Your task to perform on an android device: change the clock display to analog Image 0: 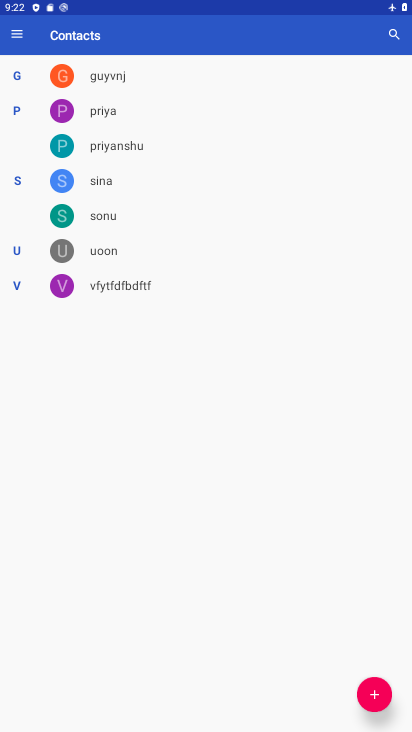
Step 0: press home button
Your task to perform on an android device: change the clock display to analog Image 1: 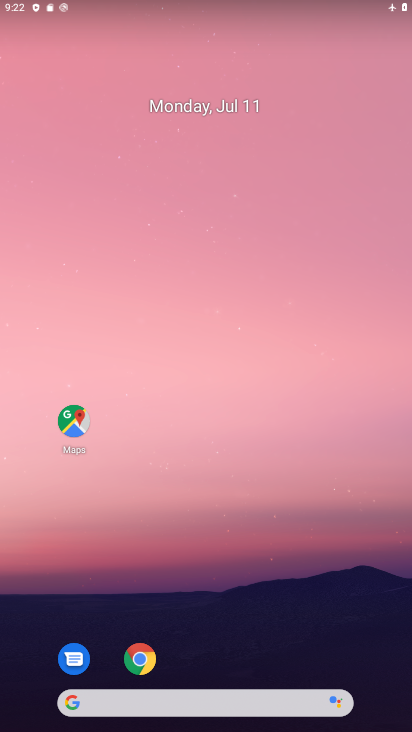
Step 1: drag from (224, 634) to (252, 118)
Your task to perform on an android device: change the clock display to analog Image 2: 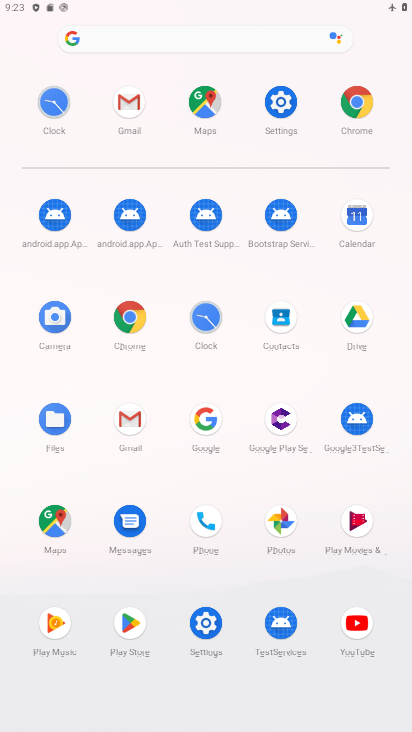
Step 2: click (194, 317)
Your task to perform on an android device: change the clock display to analog Image 3: 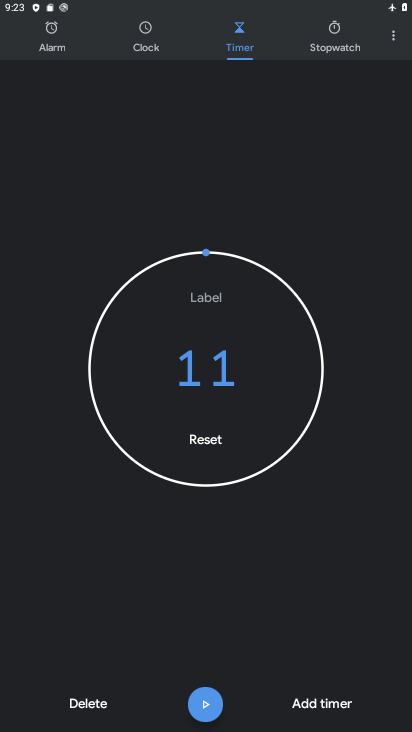
Step 3: click (387, 31)
Your task to perform on an android device: change the clock display to analog Image 4: 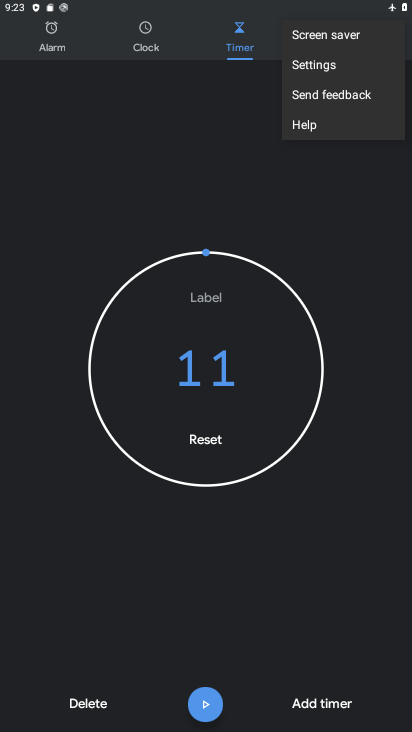
Step 4: click (353, 68)
Your task to perform on an android device: change the clock display to analog Image 5: 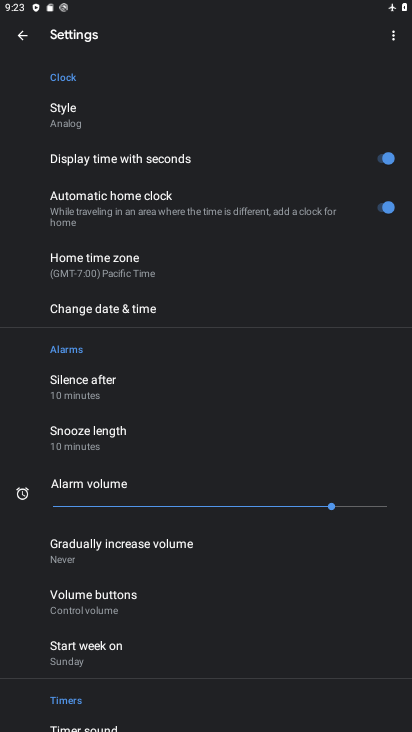
Step 5: click (80, 110)
Your task to perform on an android device: change the clock display to analog Image 6: 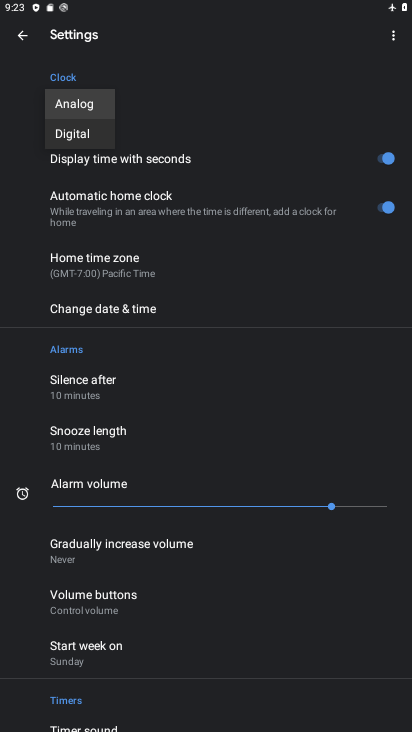
Step 6: click (74, 112)
Your task to perform on an android device: change the clock display to analog Image 7: 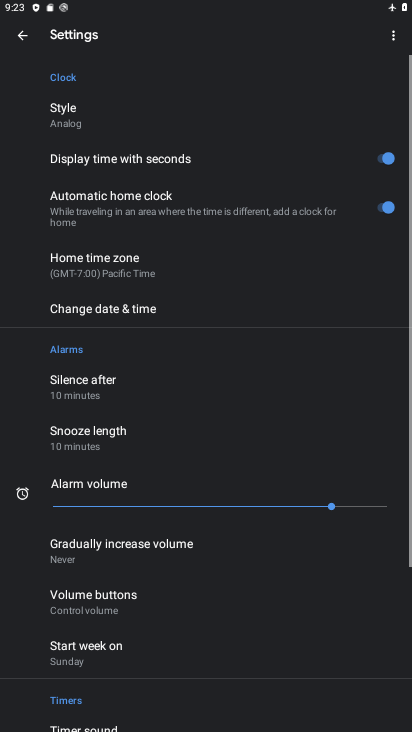
Step 7: task complete